Your task to perform on an android device: Open Yahoo.com Image 0: 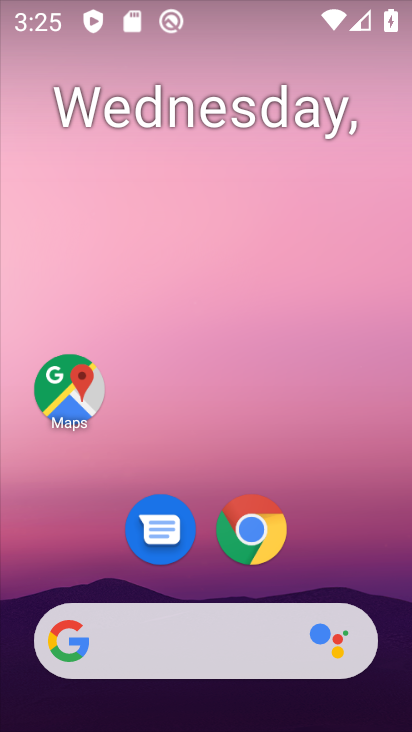
Step 0: click (256, 534)
Your task to perform on an android device: Open Yahoo.com Image 1: 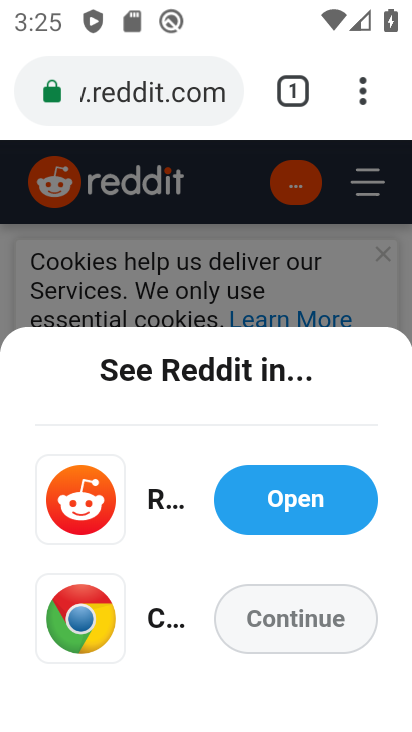
Step 1: click (295, 94)
Your task to perform on an android device: Open Yahoo.com Image 2: 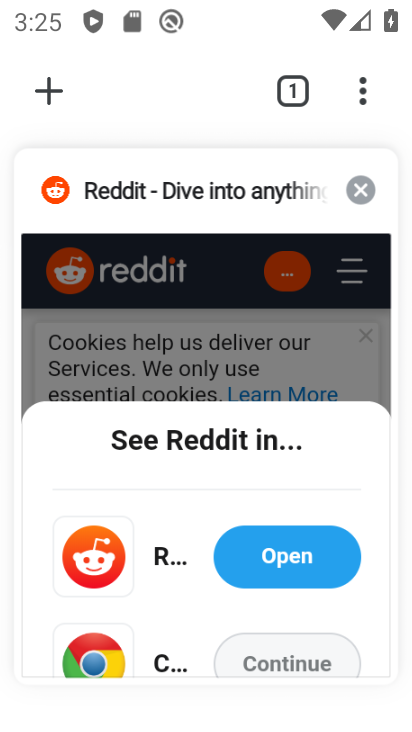
Step 2: click (367, 198)
Your task to perform on an android device: Open Yahoo.com Image 3: 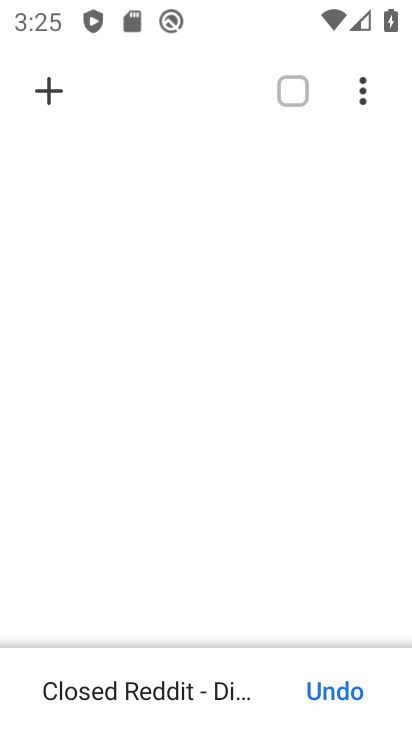
Step 3: click (36, 90)
Your task to perform on an android device: Open Yahoo.com Image 4: 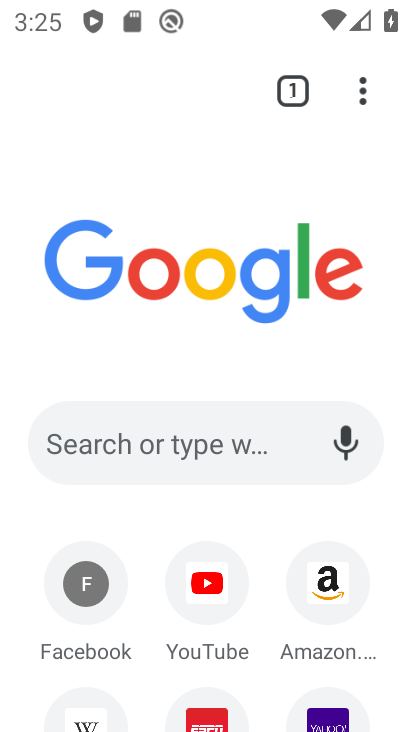
Step 4: click (315, 715)
Your task to perform on an android device: Open Yahoo.com Image 5: 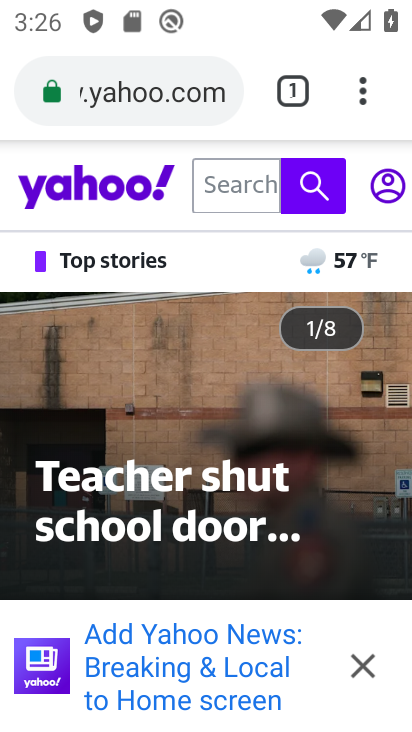
Step 5: task complete